Your task to perform on an android device: turn off sleep mode Image 0: 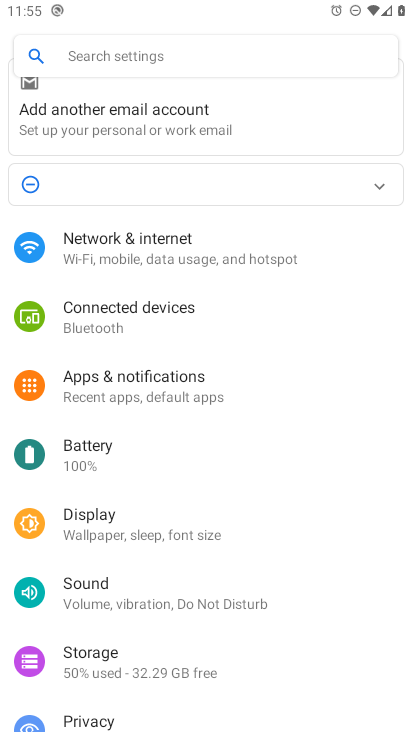
Step 0: click (150, 529)
Your task to perform on an android device: turn off sleep mode Image 1: 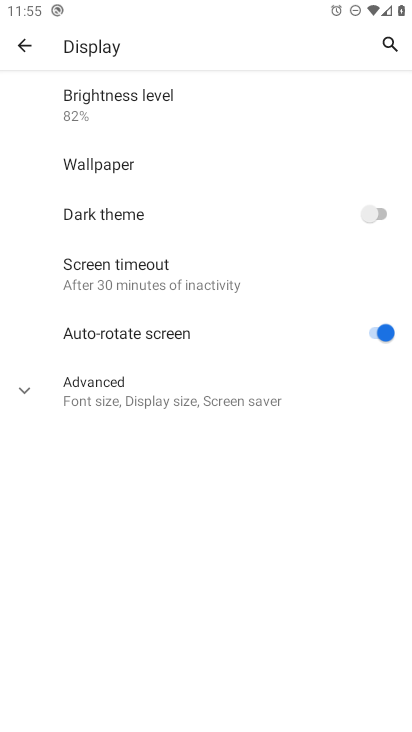
Step 1: click (76, 402)
Your task to perform on an android device: turn off sleep mode Image 2: 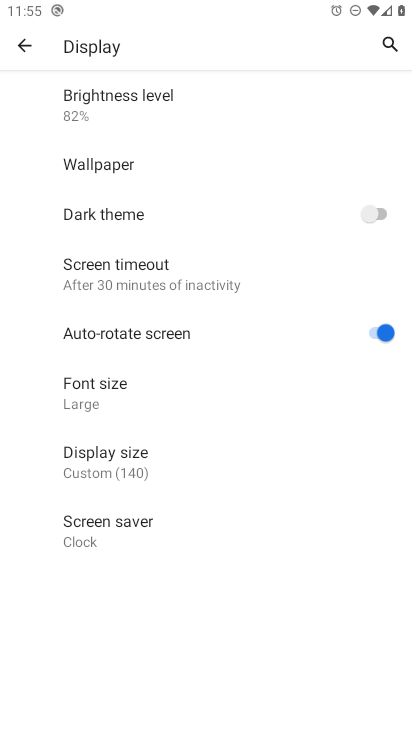
Step 2: task complete